Your task to perform on an android device: change notifications settings Image 0: 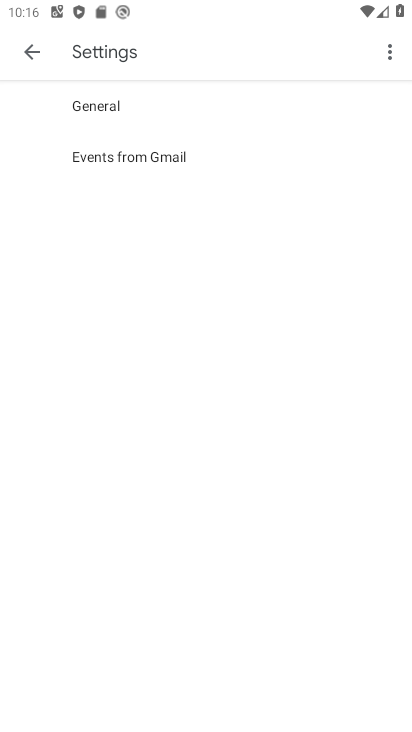
Step 0: press home button
Your task to perform on an android device: change notifications settings Image 1: 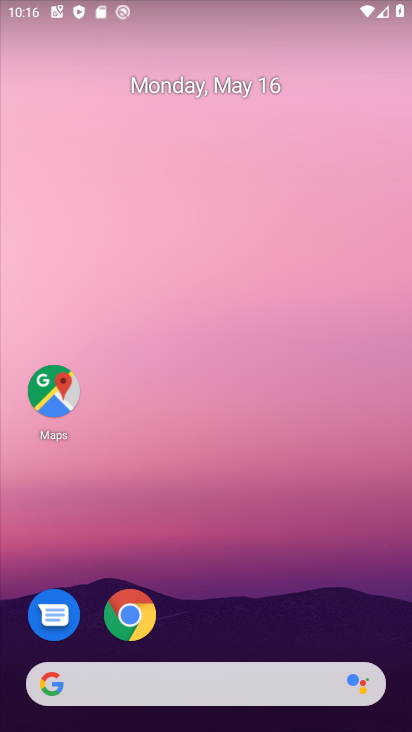
Step 1: drag from (213, 714) to (308, 203)
Your task to perform on an android device: change notifications settings Image 2: 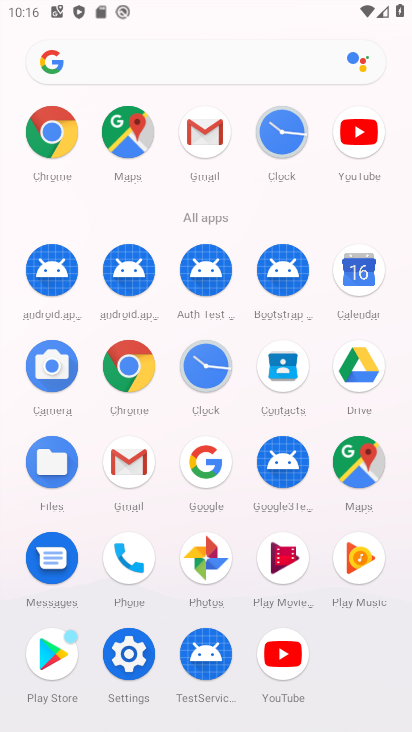
Step 2: click (134, 666)
Your task to perform on an android device: change notifications settings Image 3: 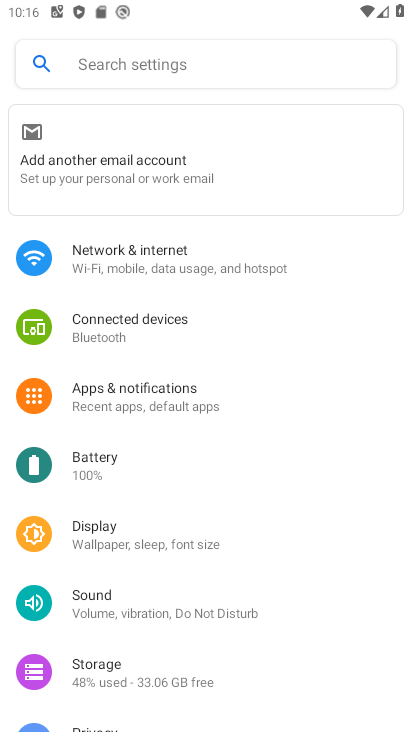
Step 3: click (144, 74)
Your task to perform on an android device: change notifications settings Image 4: 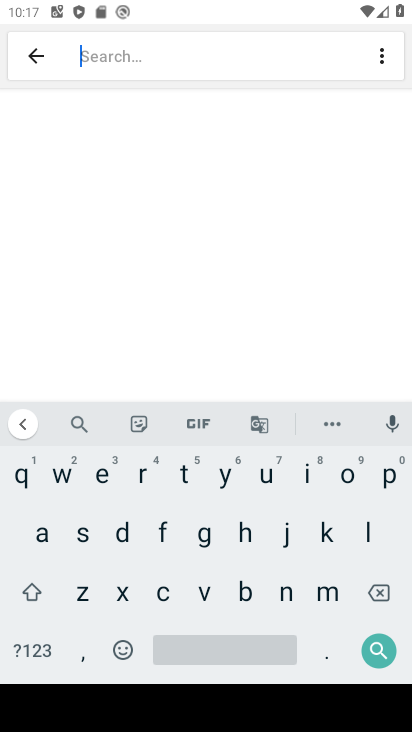
Step 4: click (286, 613)
Your task to perform on an android device: change notifications settings Image 5: 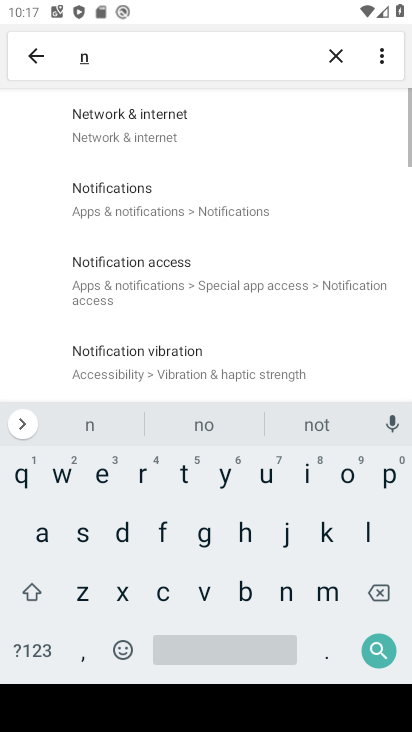
Step 5: click (343, 481)
Your task to perform on an android device: change notifications settings Image 6: 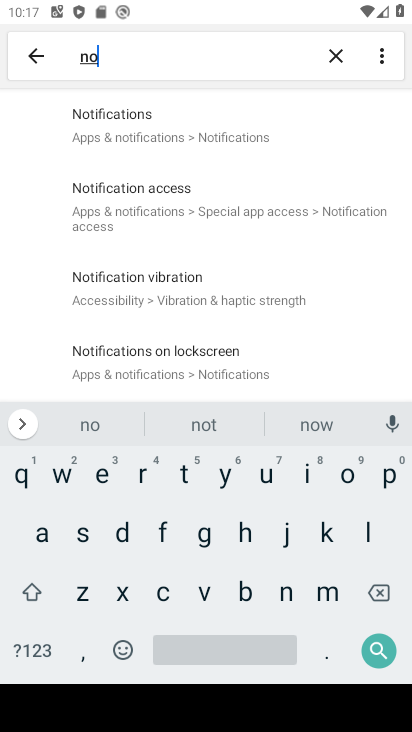
Step 6: click (216, 139)
Your task to perform on an android device: change notifications settings Image 7: 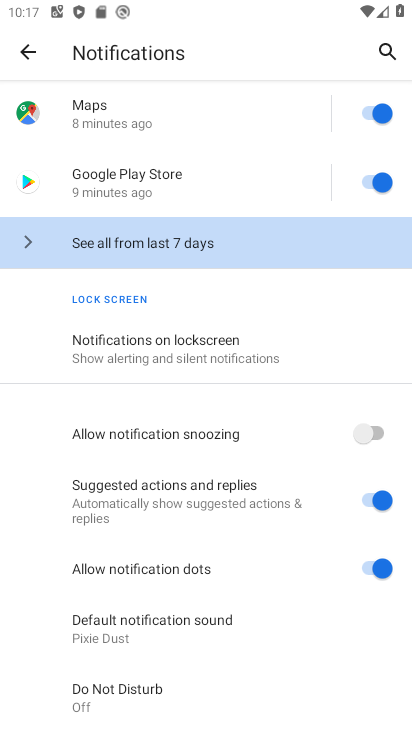
Step 7: click (216, 140)
Your task to perform on an android device: change notifications settings Image 8: 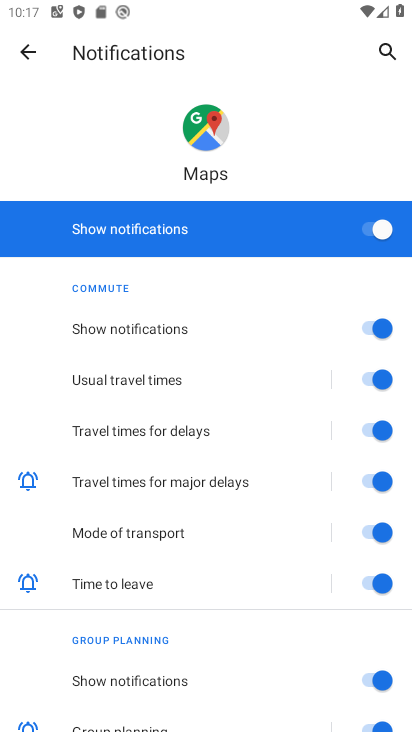
Step 8: task complete